Your task to perform on an android device: install app "ZOOM Cloud Meetings" Image 0: 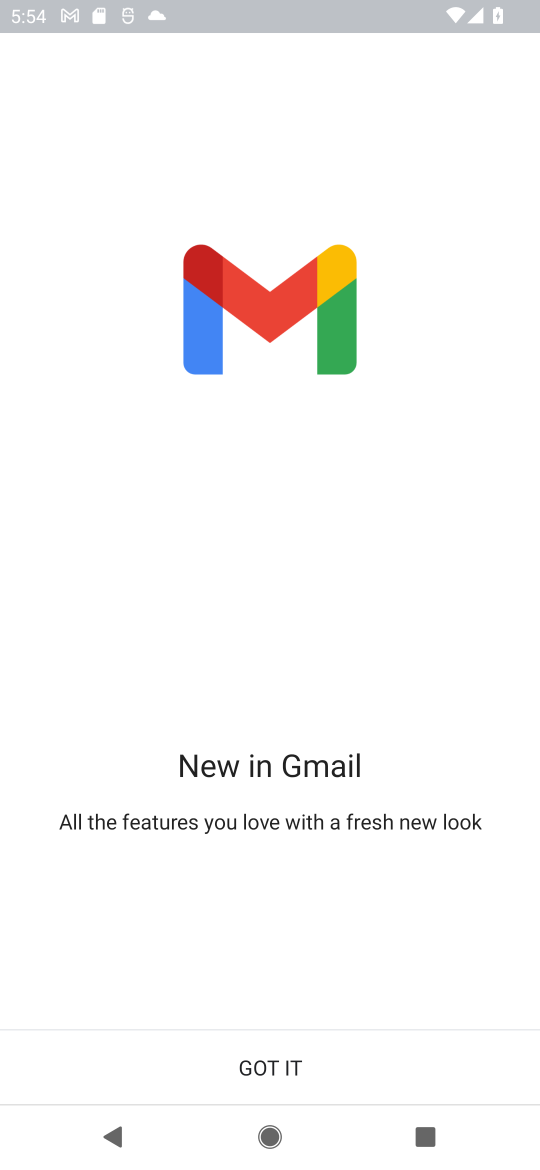
Step 0: press home button
Your task to perform on an android device: install app "ZOOM Cloud Meetings" Image 1: 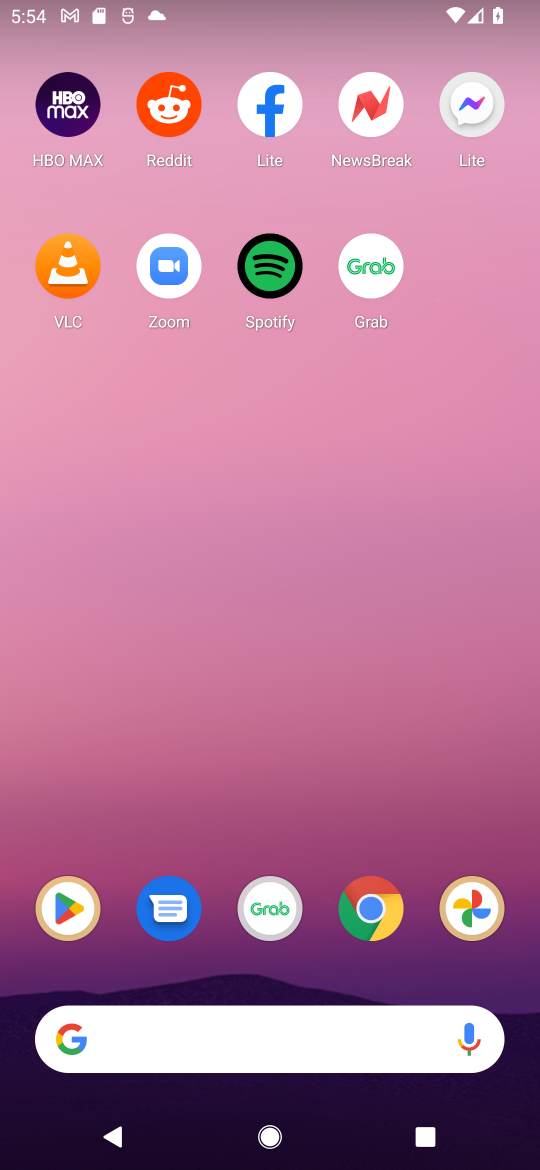
Step 1: click (62, 901)
Your task to perform on an android device: install app "ZOOM Cloud Meetings" Image 2: 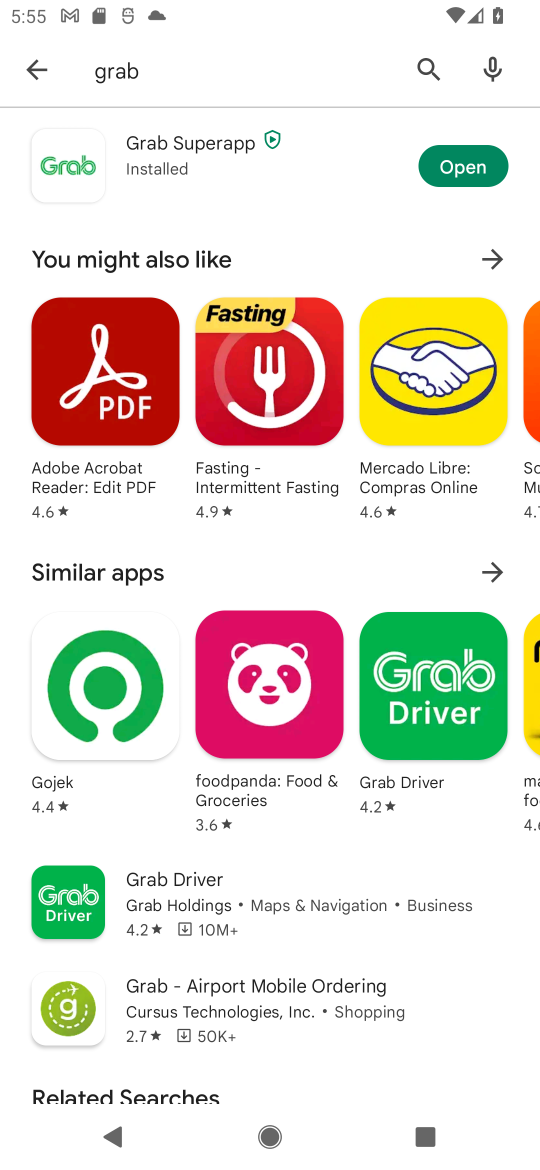
Step 2: click (418, 62)
Your task to perform on an android device: install app "ZOOM Cloud Meetings" Image 3: 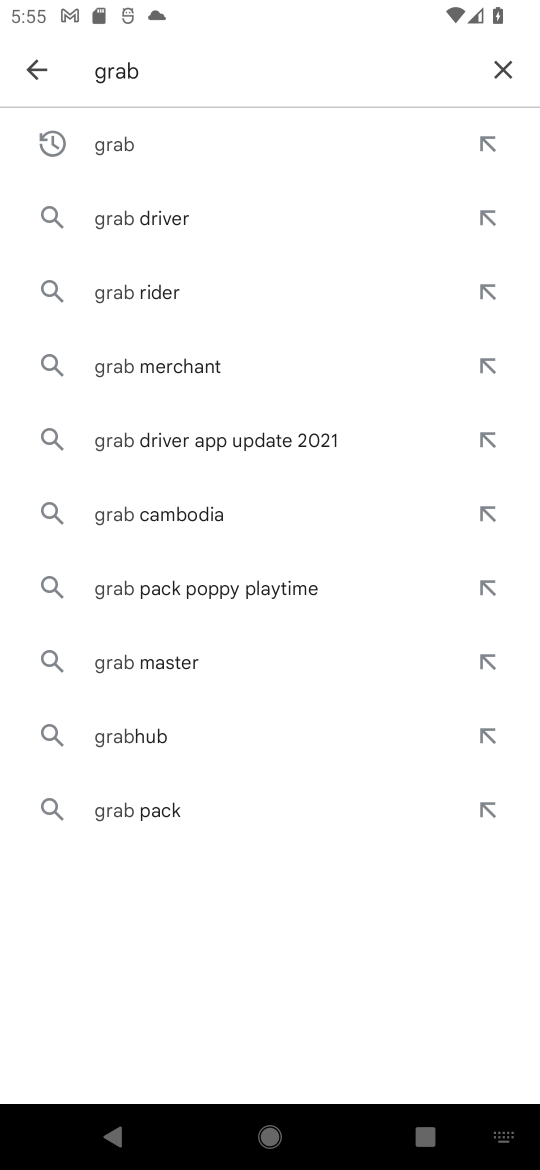
Step 3: click (505, 71)
Your task to perform on an android device: install app "ZOOM Cloud Meetings" Image 4: 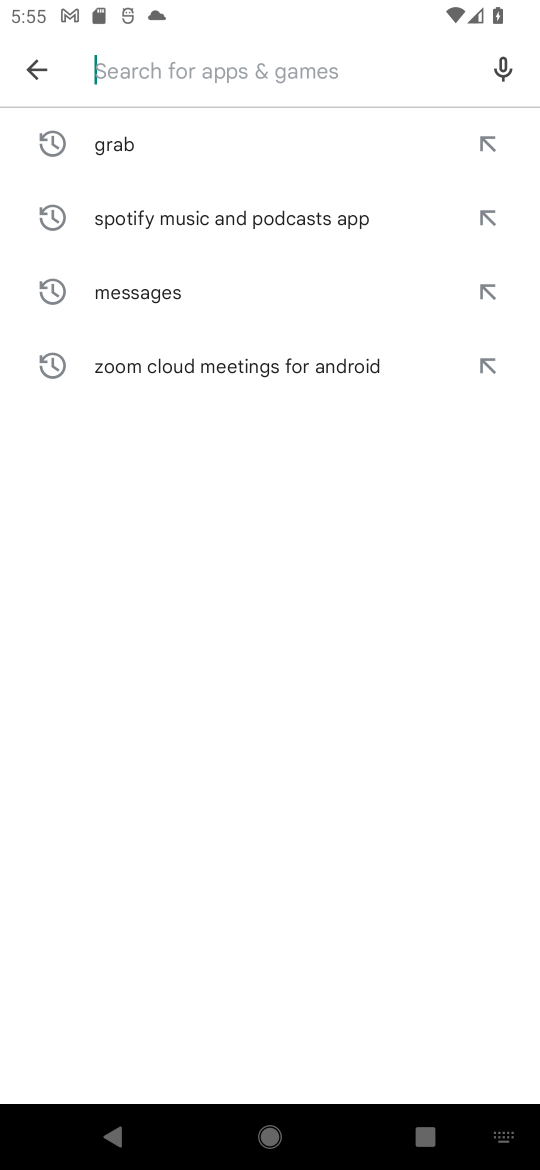
Step 4: type "ZOOM Cloud Meetings"
Your task to perform on an android device: install app "ZOOM Cloud Meetings" Image 5: 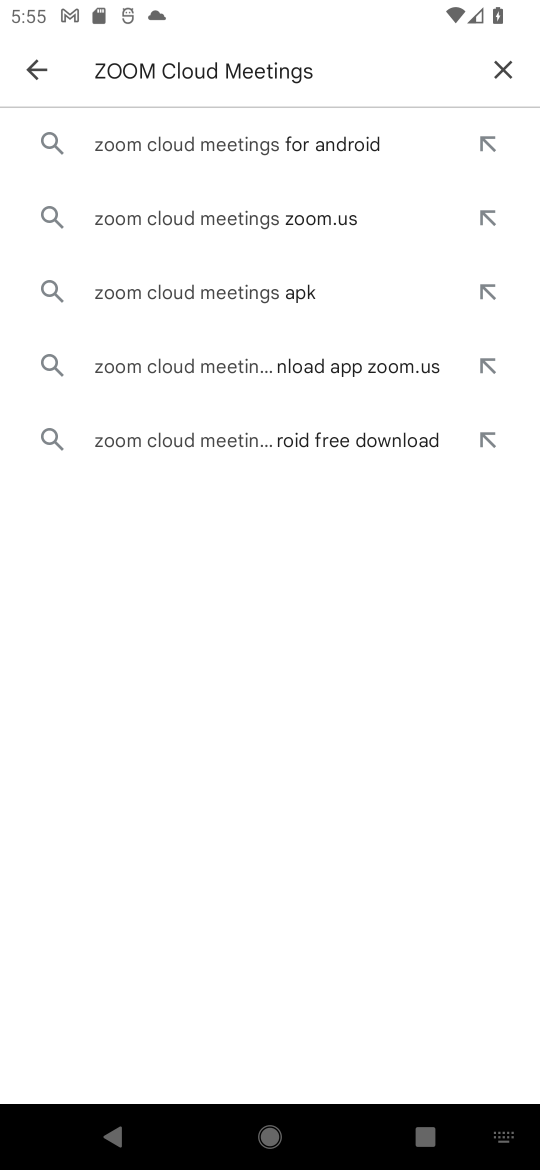
Step 5: click (217, 225)
Your task to perform on an android device: install app "ZOOM Cloud Meetings" Image 6: 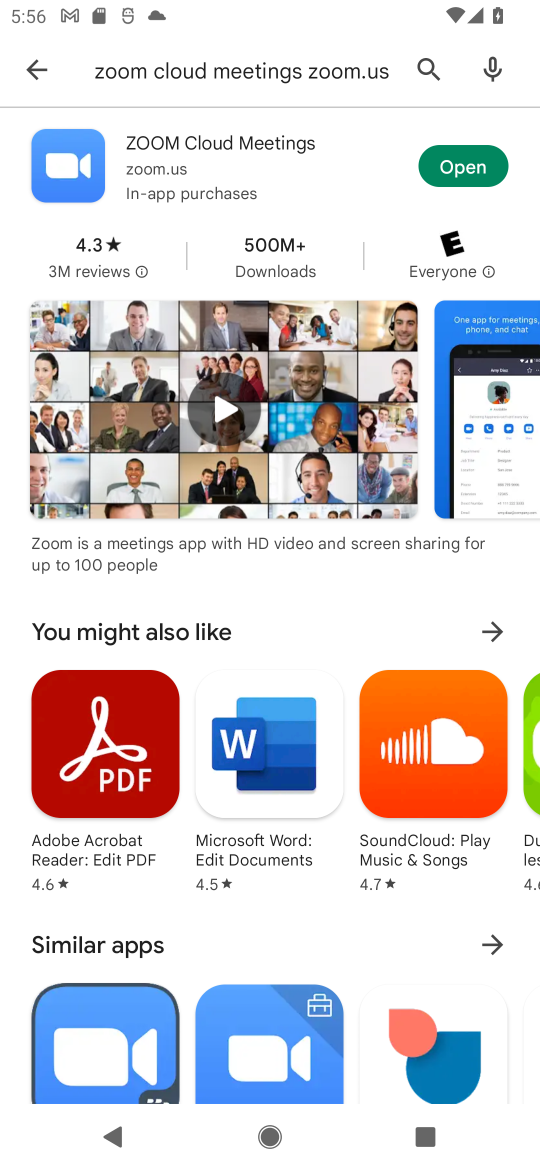
Step 6: click (476, 156)
Your task to perform on an android device: install app "ZOOM Cloud Meetings" Image 7: 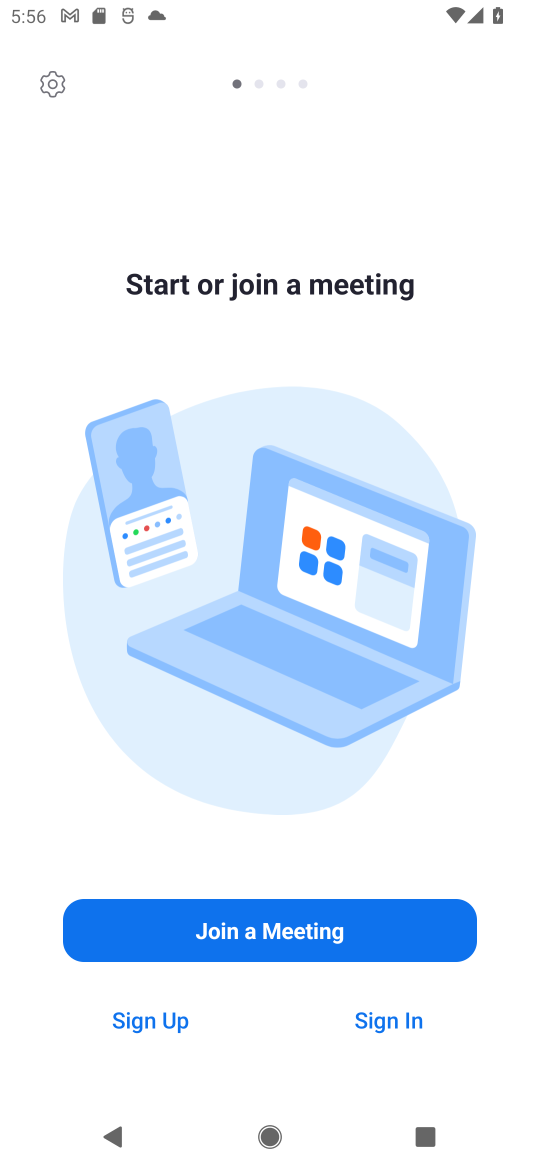
Step 7: click (265, 935)
Your task to perform on an android device: install app "ZOOM Cloud Meetings" Image 8: 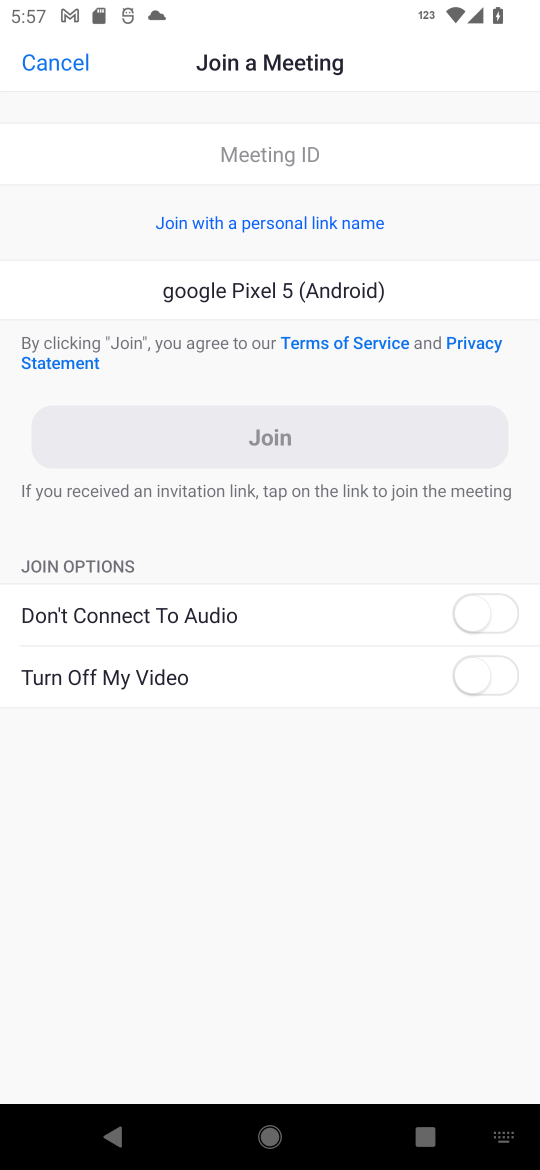
Step 8: task complete